Your task to perform on an android device: change alarm snooze length Image 0: 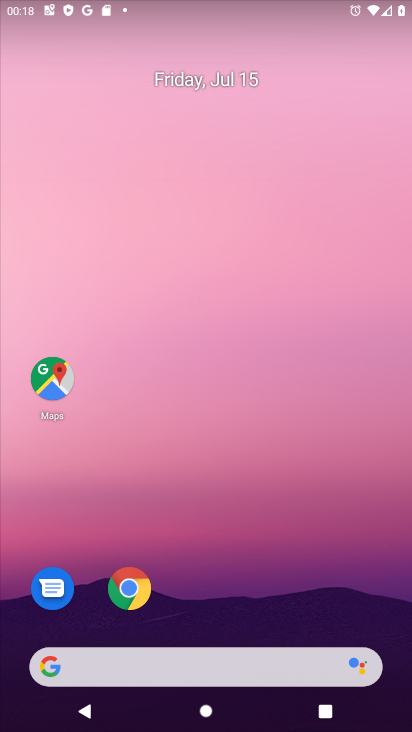
Step 0: drag from (164, 663) to (302, 184)
Your task to perform on an android device: change alarm snooze length Image 1: 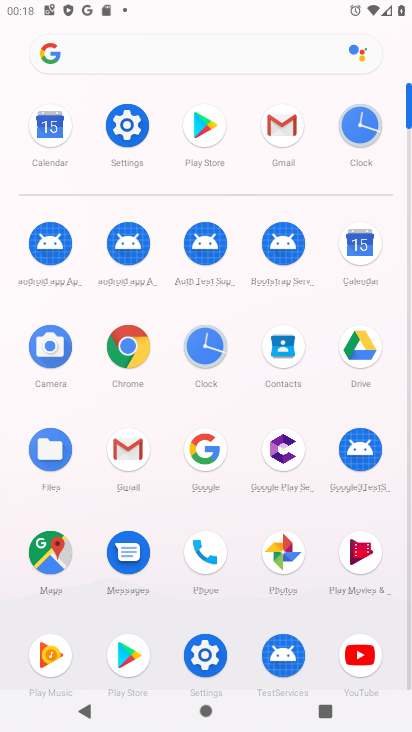
Step 1: click (199, 354)
Your task to perform on an android device: change alarm snooze length Image 2: 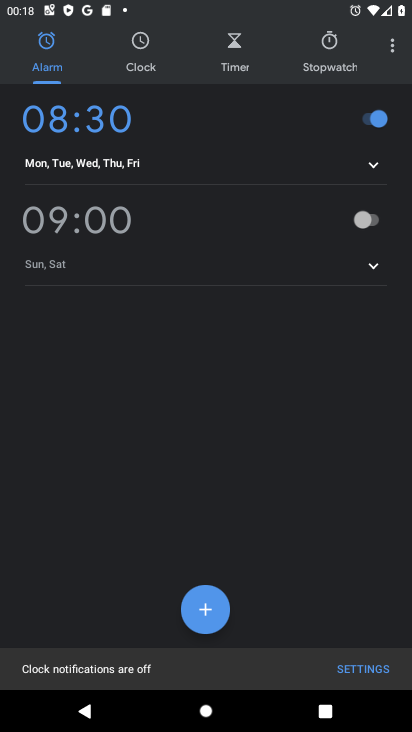
Step 2: click (388, 45)
Your task to perform on an android device: change alarm snooze length Image 3: 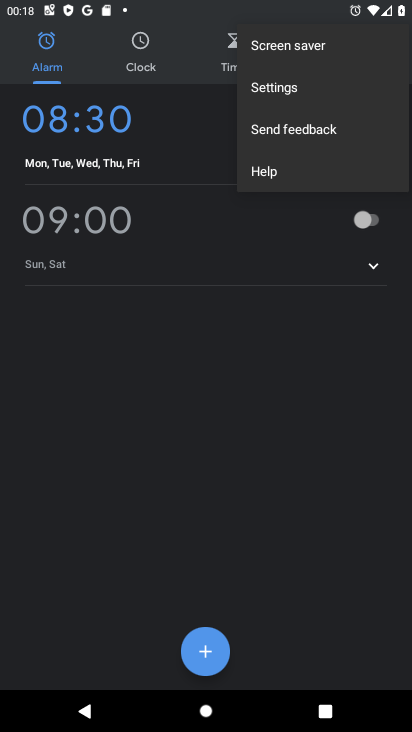
Step 3: click (296, 94)
Your task to perform on an android device: change alarm snooze length Image 4: 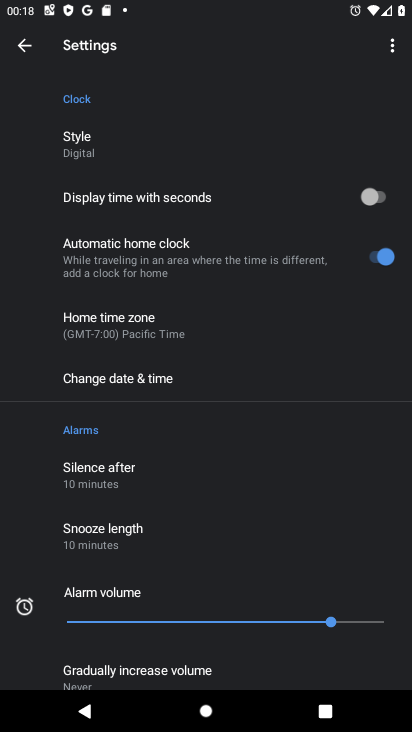
Step 4: click (86, 532)
Your task to perform on an android device: change alarm snooze length Image 5: 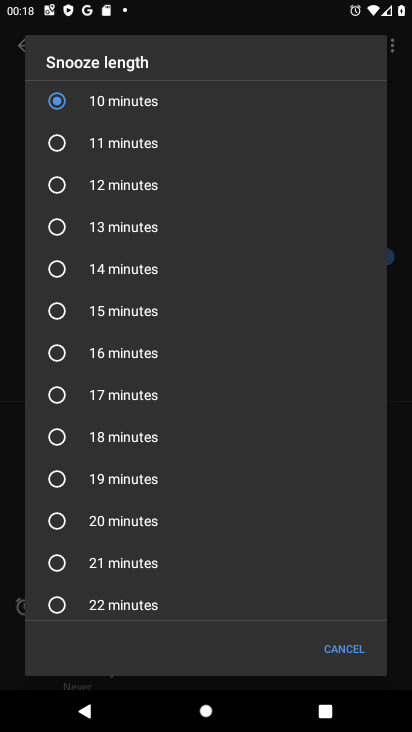
Step 5: click (56, 310)
Your task to perform on an android device: change alarm snooze length Image 6: 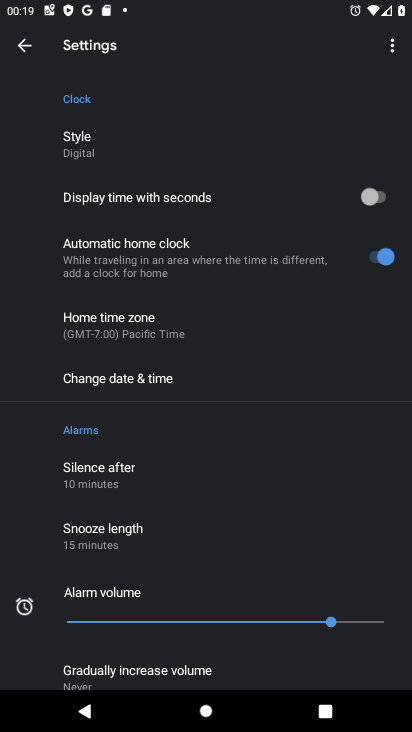
Step 6: task complete